Your task to perform on an android device: Play some music on YouTube Image 0: 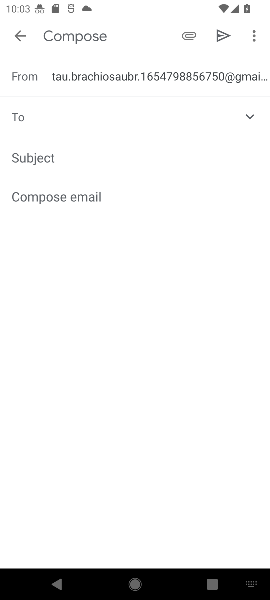
Step 0: press home button
Your task to perform on an android device: Play some music on YouTube Image 1: 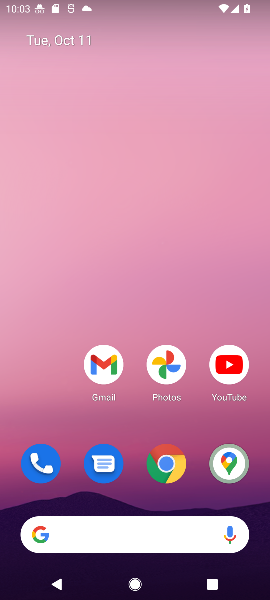
Step 1: click (227, 362)
Your task to perform on an android device: Play some music on YouTube Image 2: 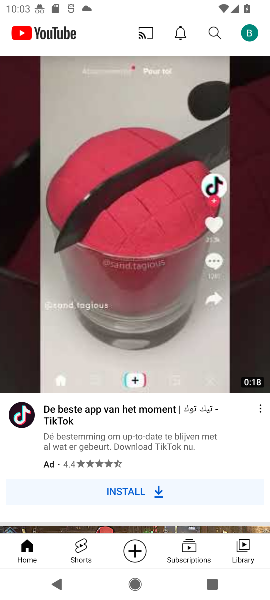
Step 2: click (209, 30)
Your task to perform on an android device: Play some music on YouTube Image 3: 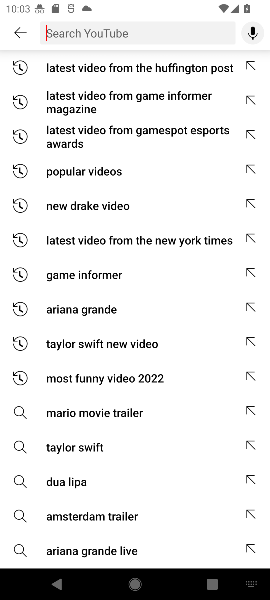
Step 3: click (76, 171)
Your task to perform on an android device: Play some music on YouTube Image 4: 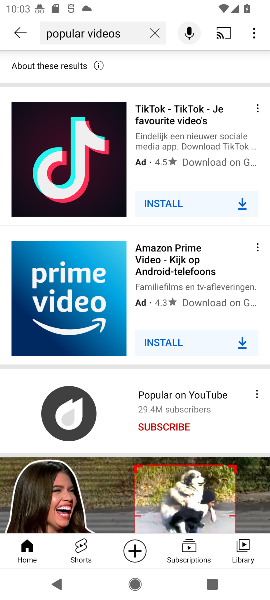
Step 4: task complete